Your task to perform on an android device: Go to display settings Image 0: 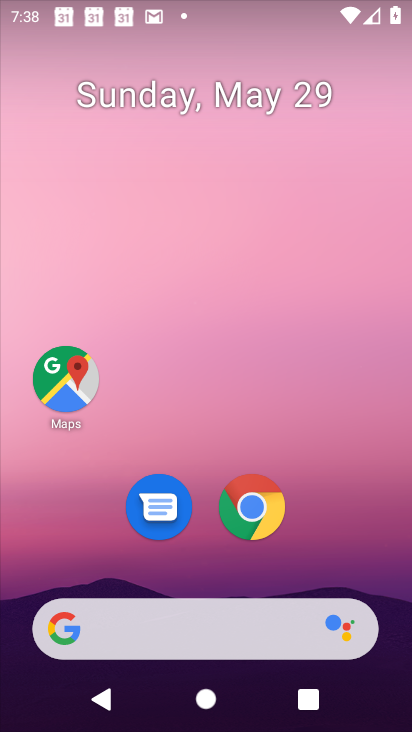
Step 0: drag from (339, 554) to (268, 40)
Your task to perform on an android device: Go to display settings Image 1: 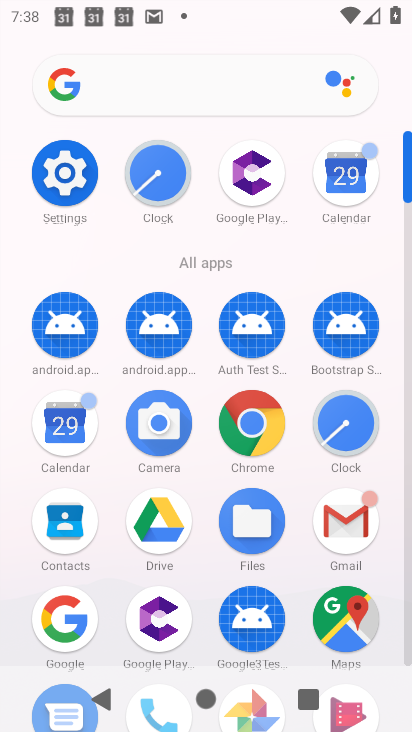
Step 1: click (409, 659)
Your task to perform on an android device: Go to display settings Image 2: 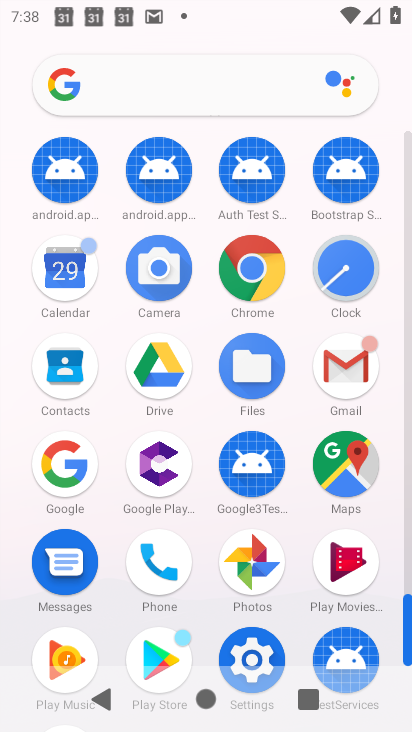
Step 2: click (244, 645)
Your task to perform on an android device: Go to display settings Image 3: 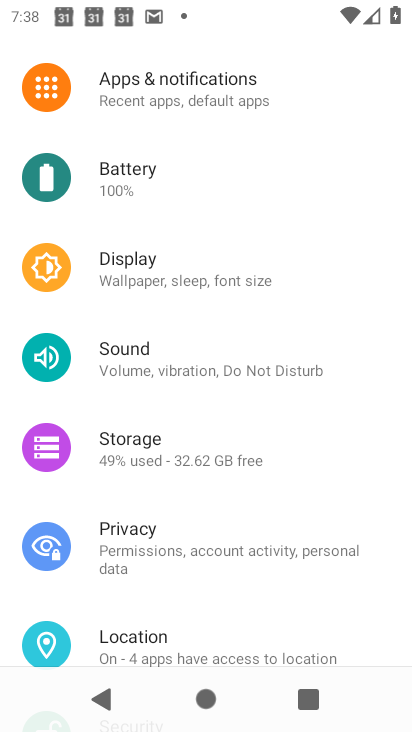
Step 3: task complete